Your task to perform on an android device: change the clock display to analog Image 0: 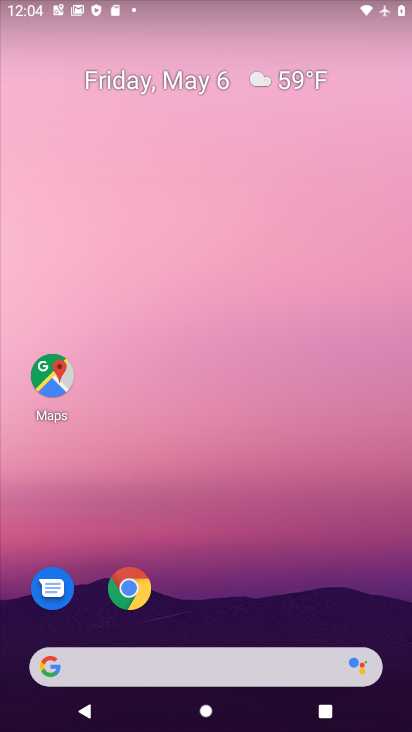
Step 0: drag from (191, 661) to (352, 48)
Your task to perform on an android device: change the clock display to analog Image 1: 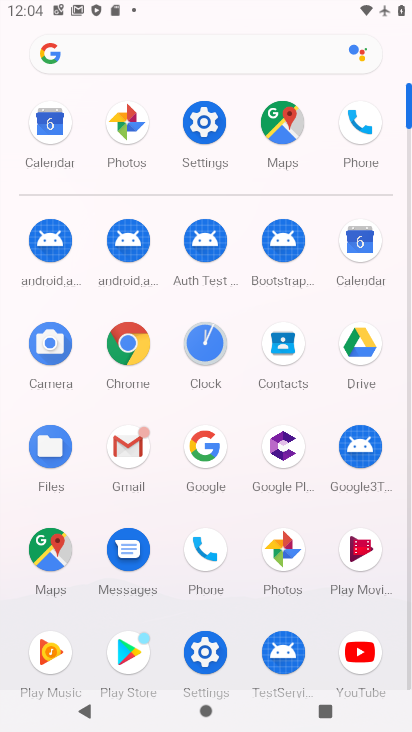
Step 1: click (209, 346)
Your task to perform on an android device: change the clock display to analog Image 2: 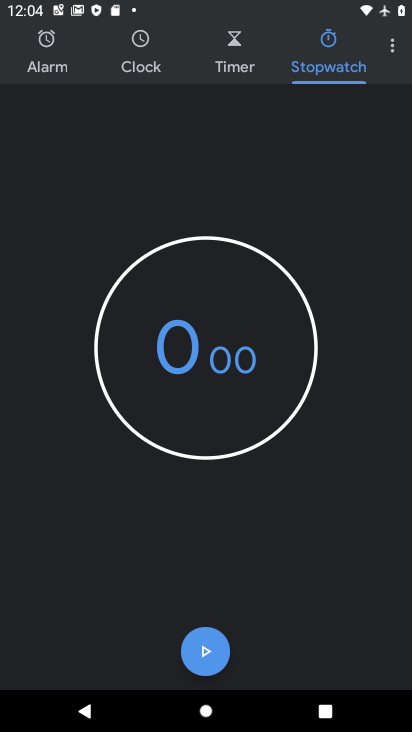
Step 2: click (390, 50)
Your task to perform on an android device: change the clock display to analog Image 3: 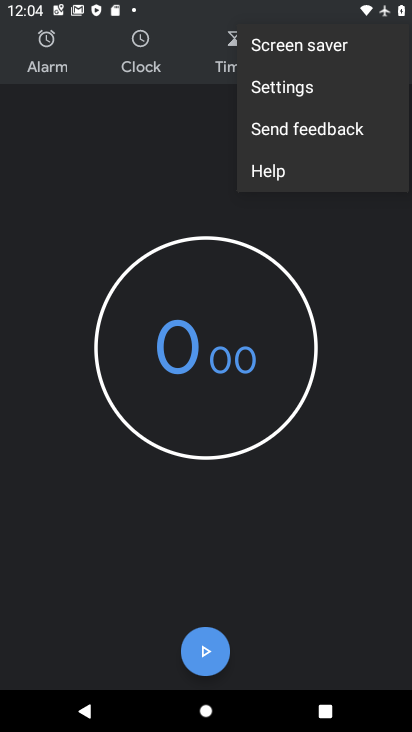
Step 3: click (298, 89)
Your task to perform on an android device: change the clock display to analog Image 4: 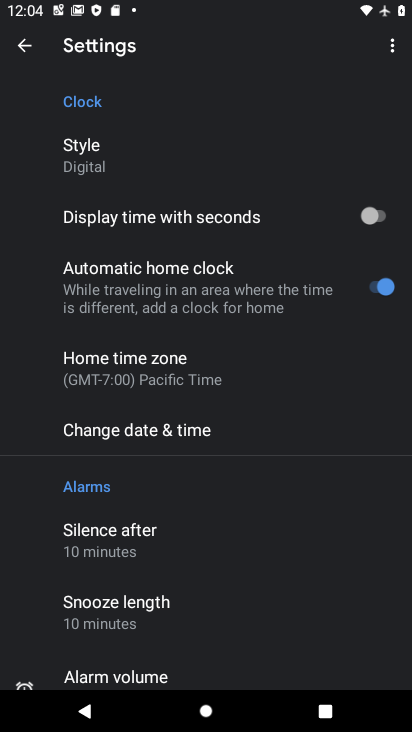
Step 4: click (83, 147)
Your task to perform on an android device: change the clock display to analog Image 5: 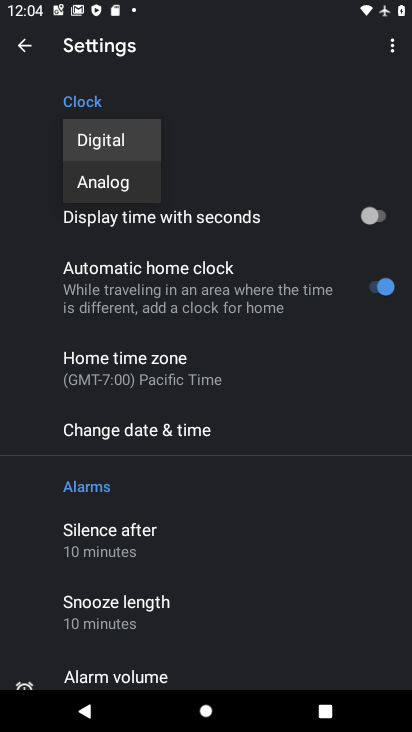
Step 5: click (111, 179)
Your task to perform on an android device: change the clock display to analog Image 6: 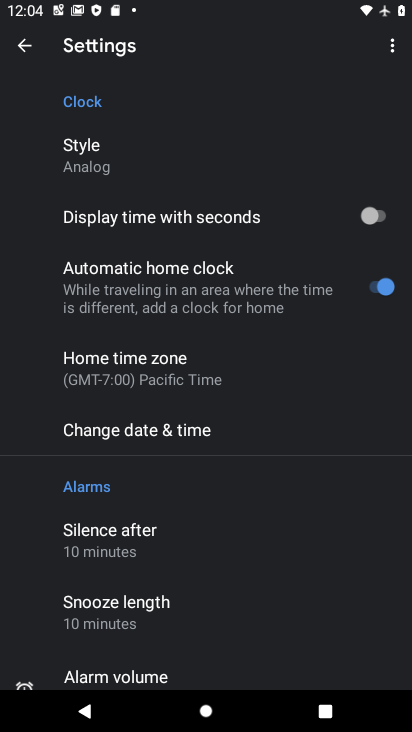
Step 6: task complete